Your task to perform on an android device: toggle javascript in the chrome app Image 0: 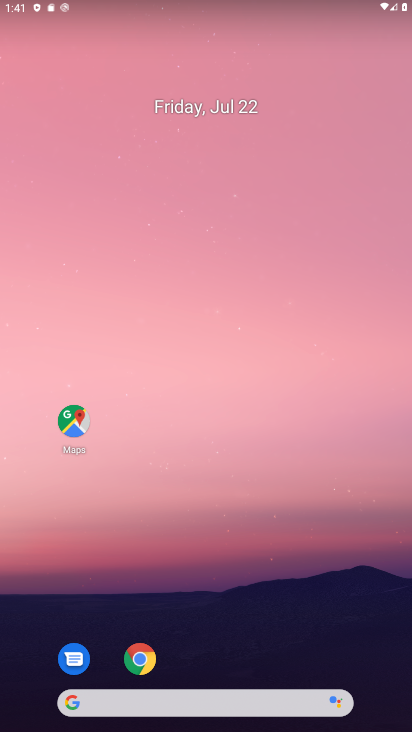
Step 0: click (132, 670)
Your task to perform on an android device: toggle javascript in the chrome app Image 1: 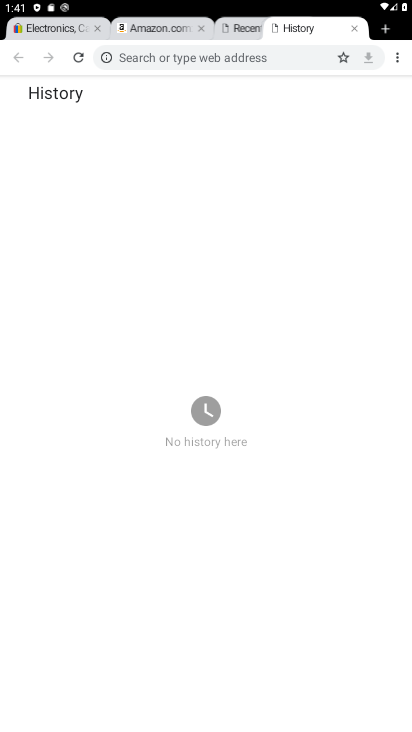
Step 1: task complete